Your task to perform on an android device: uninstall "Google Translate" Image 0: 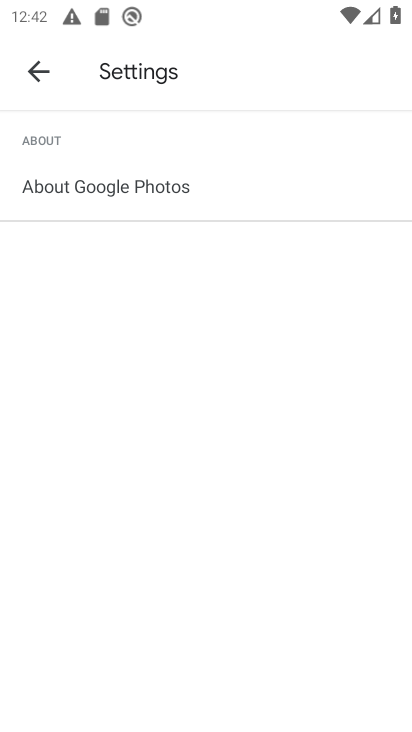
Step 0: press home button
Your task to perform on an android device: uninstall "Google Translate" Image 1: 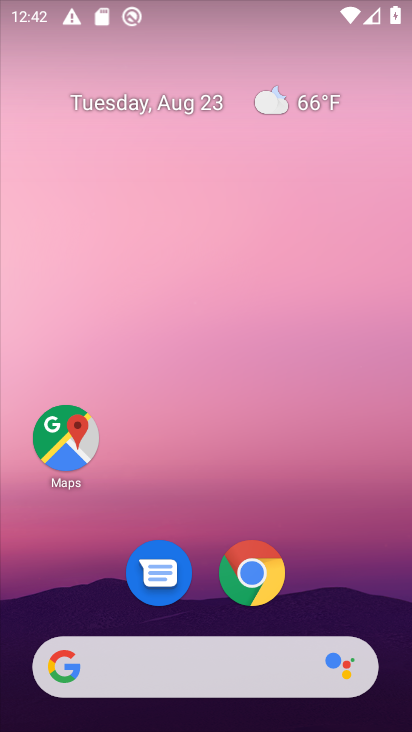
Step 1: drag from (204, 521) to (182, 51)
Your task to perform on an android device: uninstall "Google Translate" Image 2: 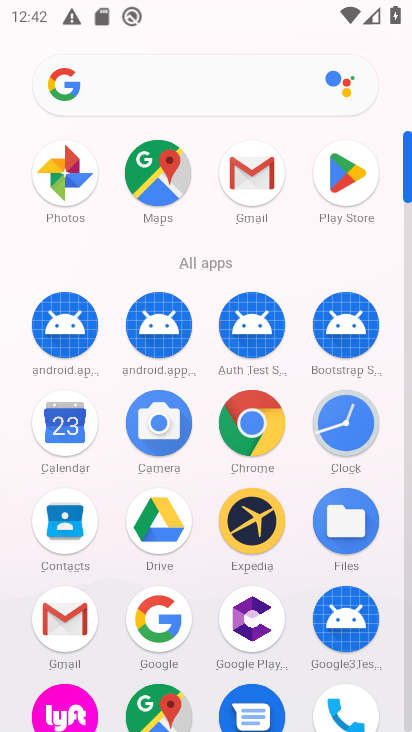
Step 2: click (340, 168)
Your task to perform on an android device: uninstall "Google Translate" Image 3: 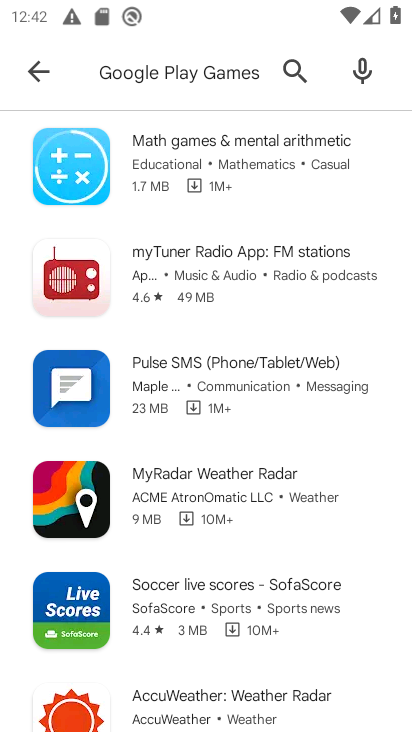
Step 3: click (291, 59)
Your task to perform on an android device: uninstall "Google Translate" Image 4: 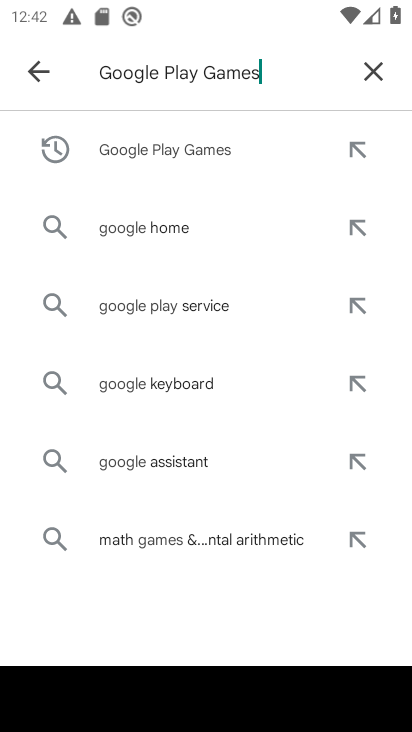
Step 4: click (369, 61)
Your task to perform on an android device: uninstall "Google Translate" Image 5: 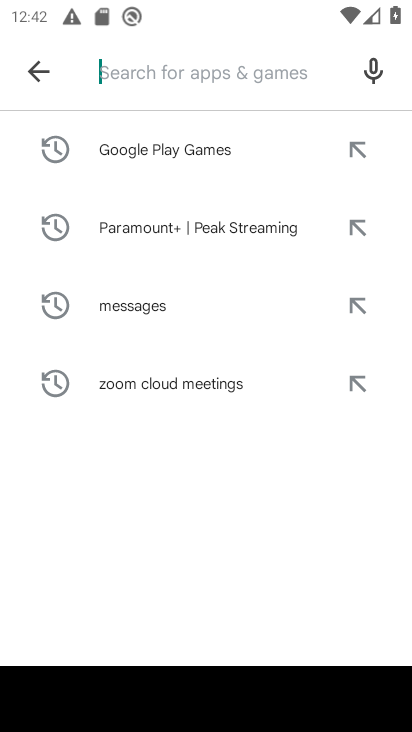
Step 5: type "Google Translate"
Your task to perform on an android device: uninstall "Google Translate" Image 6: 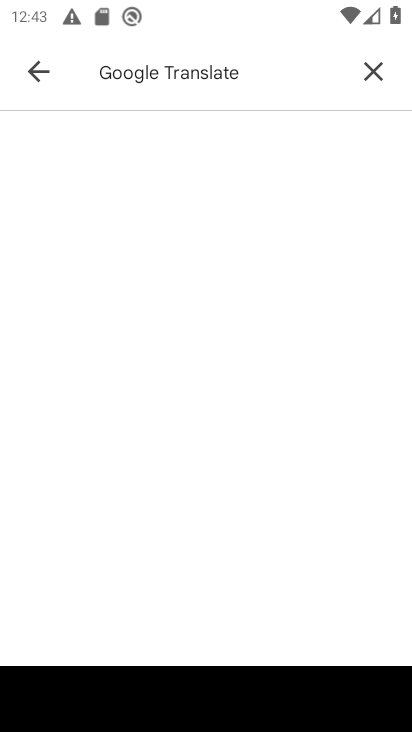
Step 6: task complete